Your task to perform on an android device: Open Amazon Image 0: 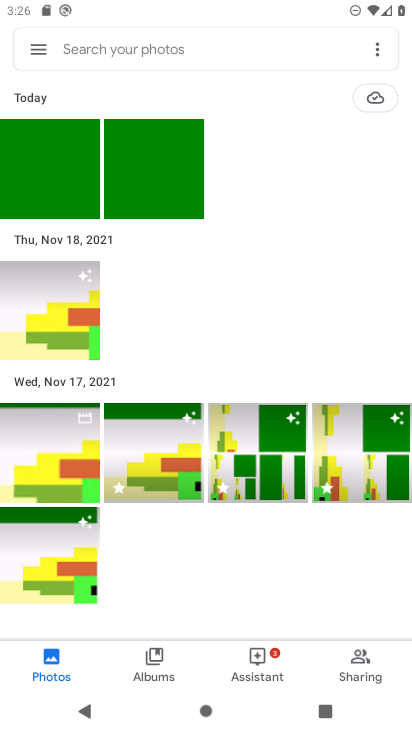
Step 0: press home button
Your task to perform on an android device: Open Amazon Image 1: 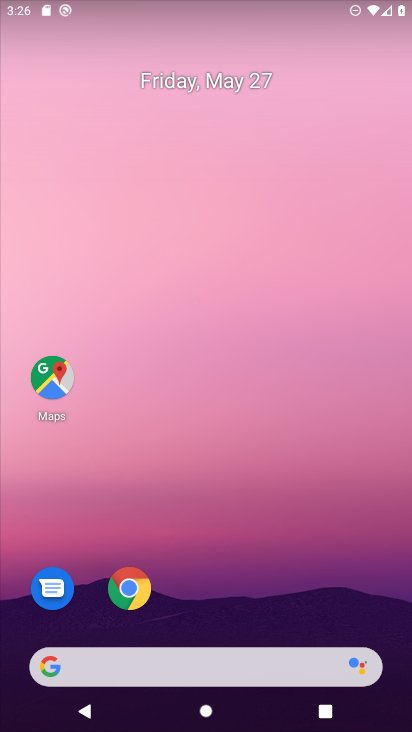
Step 1: click (129, 579)
Your task to perform on an android device: Open Amazon Image 2: 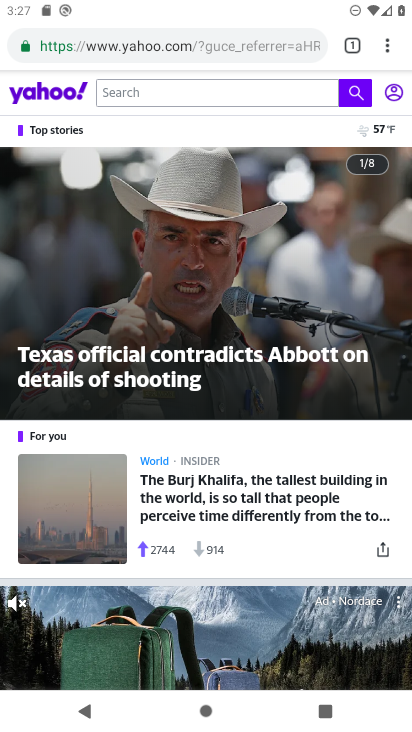
Step 2: click (345, 42)
Your task to perform on an android device: Open Amazon Image 3: 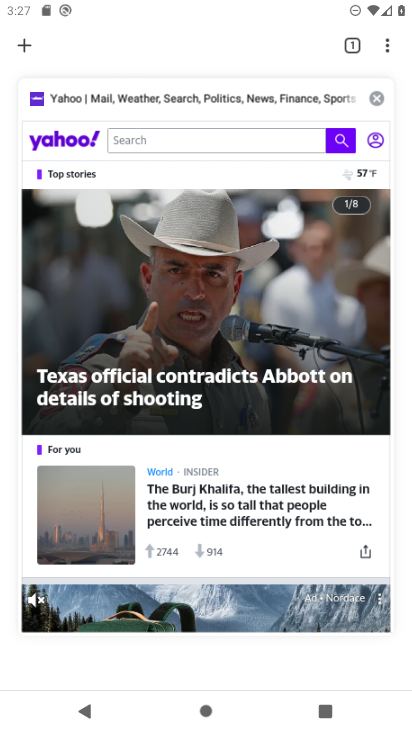
Step 3: click (382, 100)
Your task to perform on an android device: Open Amazon Image 4: 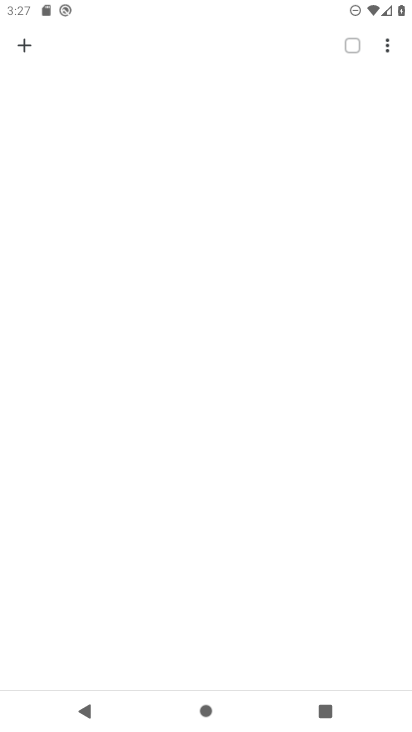
Step 4: click (28, 39)
Your task to perform on an android device: Open Amazon Image 5: 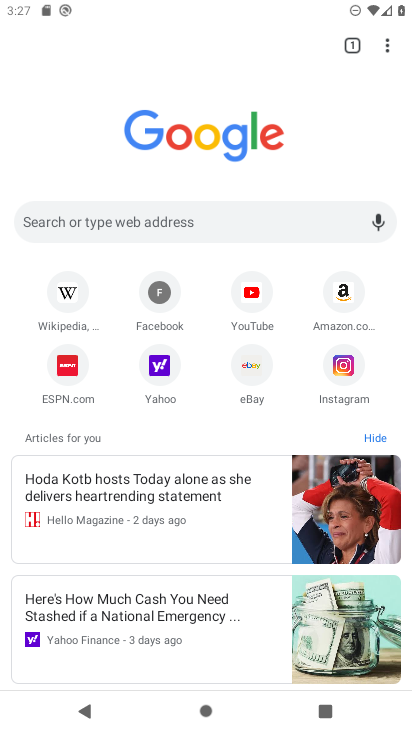
Step 5: click (358, 295)
Your task to perform on an android device: Open Amazon Image 6: 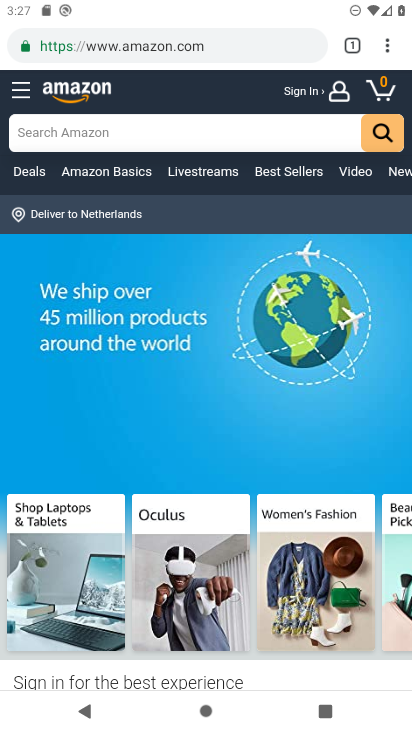
Step 6: task complete